Your task to perform on an android device: Open ESPN.com Image 0: 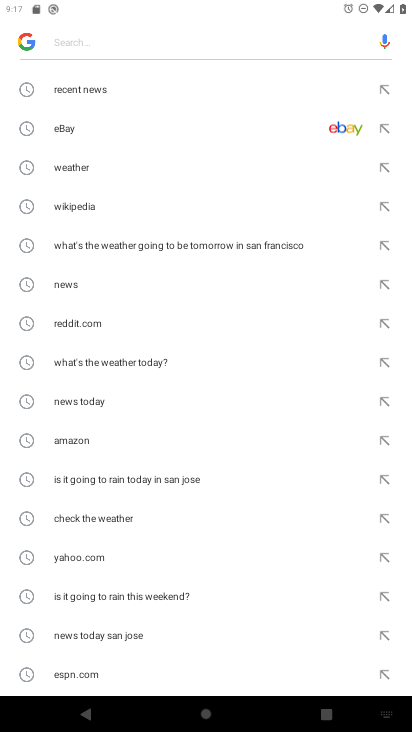
Step 0: type "espn.com"
Your task to perform on an android device: Open ESPN.com Image 1: 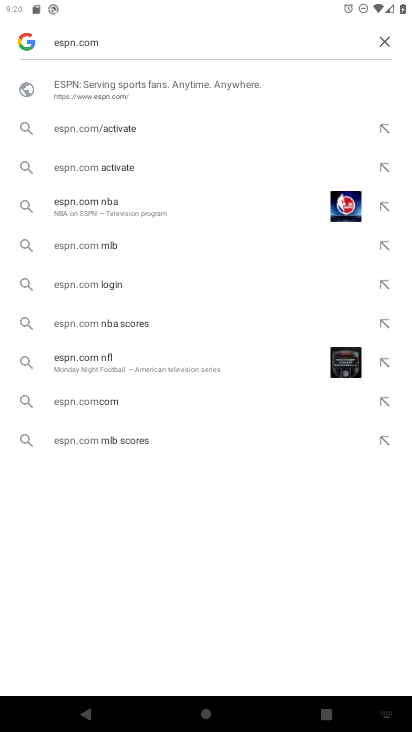
Step 1: click (242, 85)
Your task to perform on an android device: Open ESPN.com Image 2: 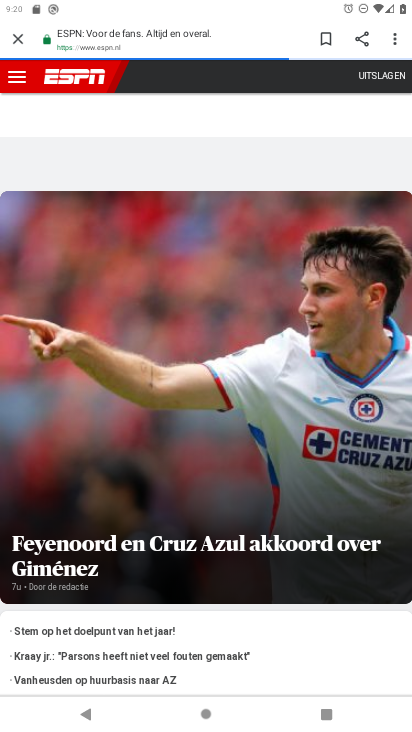
Step 2: task complete